Your task to perform on an android device: check out phone information Image 0: 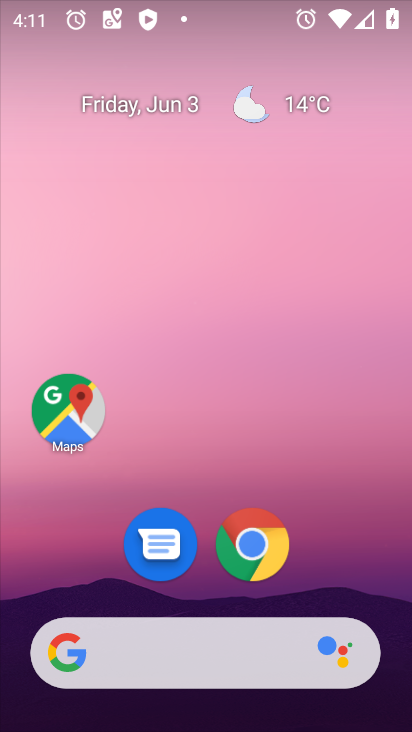
Step 0: drag from (402, 647) to (317, 73)
Your task to perform on an android device: check out phone information Image 1: 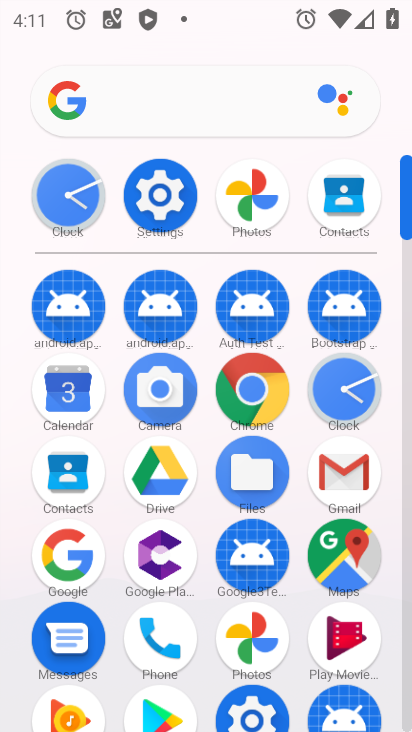
Step 1: click (407, 635)
Your task to perform on an android device: check out phone information Image 2: 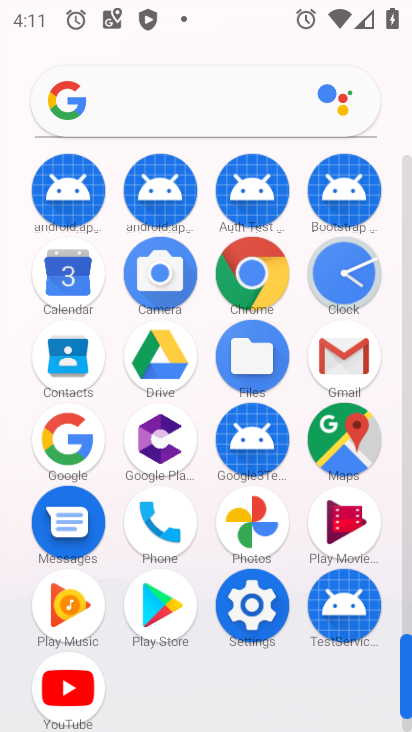
Step 2: click (253, 608)
Your task to perform on an android device: check out phone information Image 3: 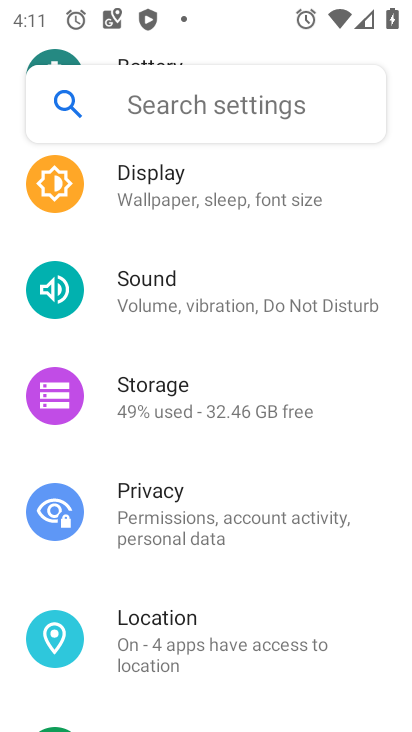
Step 3: drag from (322, 631) to (302, 209)
Your task to perform on an android device: check out phone information Image 4: 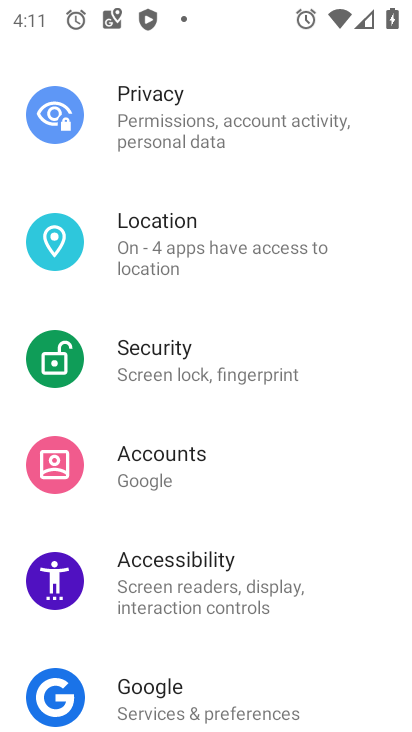
Step 4: drag from (325, 649) to (276, 40)
Your task to perform on an android device: check out phone information Image 5: 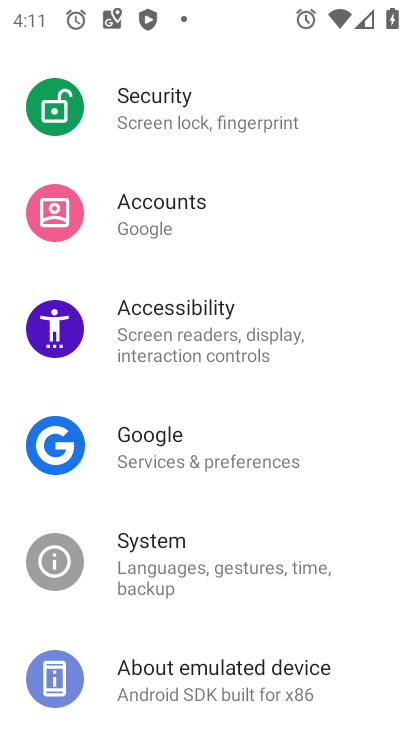
Step 5: drag from (336, 576) to (290, 72)
Your task to perform on an android device: check out phone information Image 6: 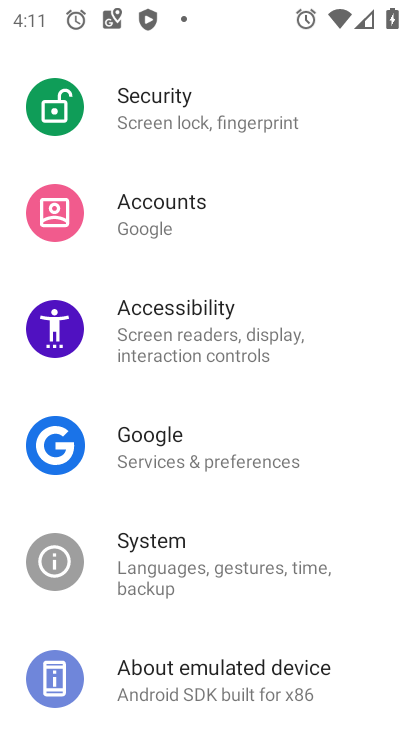
Step 6: click (194, 667)
Your task to perform on an android device: check out phone information Image 7: 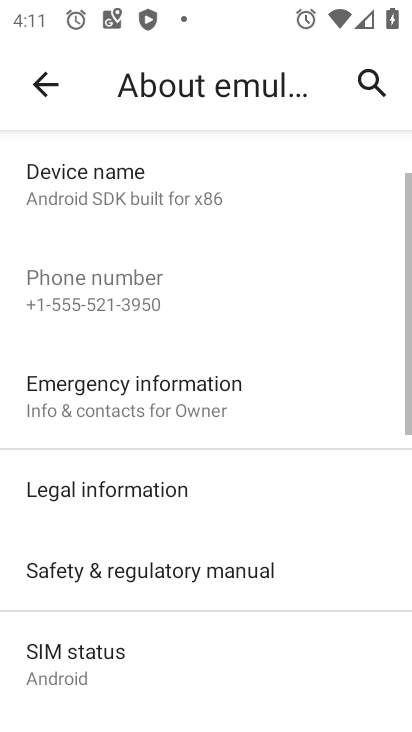
Step 7: task complete